Your task to perform on an android device: Set the phone to "Do not disturb". Image 0: 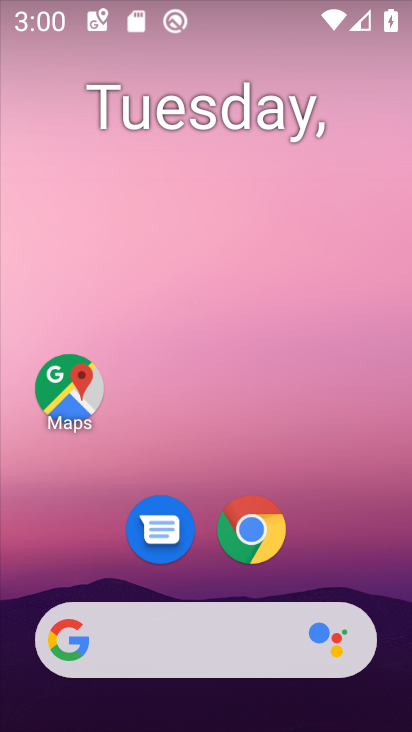
Step 0: drag from (243, 4) to (16, 563)
Your task to perform on an android device: Set the phone to "Do not disturb". Image 1: 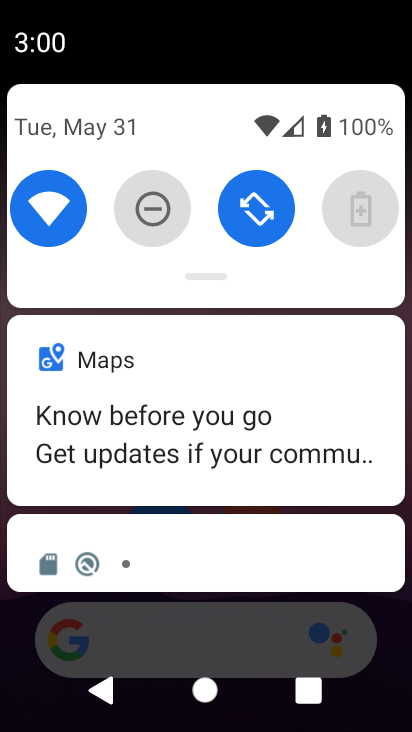
Step 1: click (143, 202)
Your task to perform on an android device: Set the phone to "Do not disturb". Image 2: 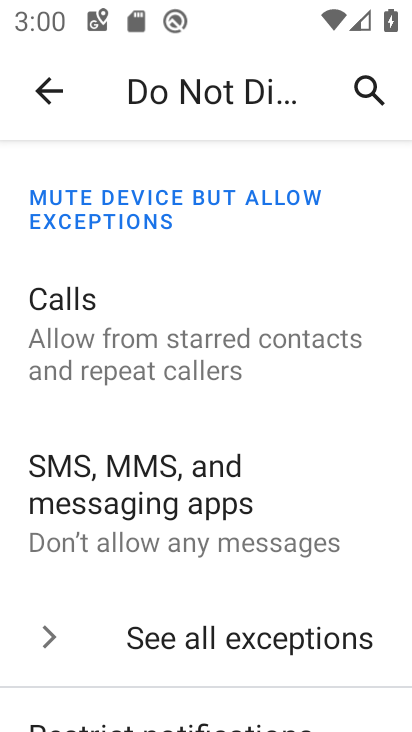
Step 2: drag from (248, 568) to (335, 192)
Your task to perform on an android device: Set the phone to "Do not disturb". Image 3: 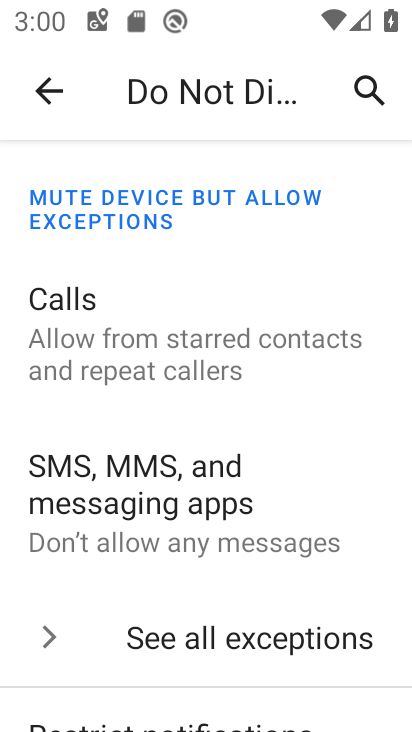
Step 3: drag from (201, 601) to (279, 216)
Your task to perform on an android device: Set the phone to "Do not disturb". Image 4: 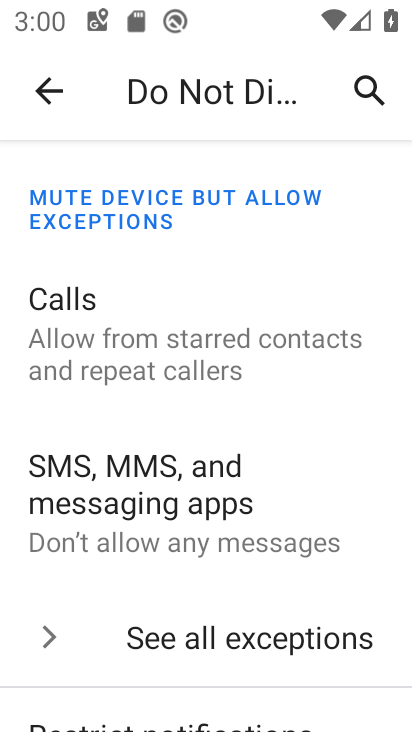
Step 4: drag from (132, 622) to (267, 198)
Your task to perform on an android device: Set the phone to "Do not disturb". Image 5: 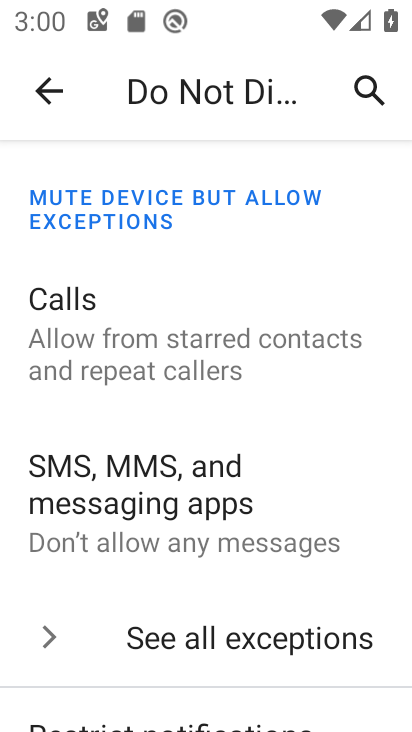
Step 5: drag from (125, 706) to (237, 182)
Your task to perform on an android device: Set the phone to "Do not disturb". Image 6: 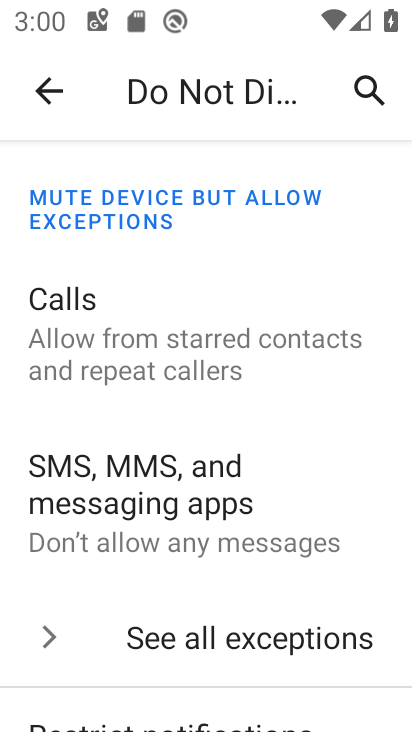
Step 6: drag from (166, 577) to (166, 383)
Your task to perform on an android device: Set the phone to "Do not disturb". Image 7: 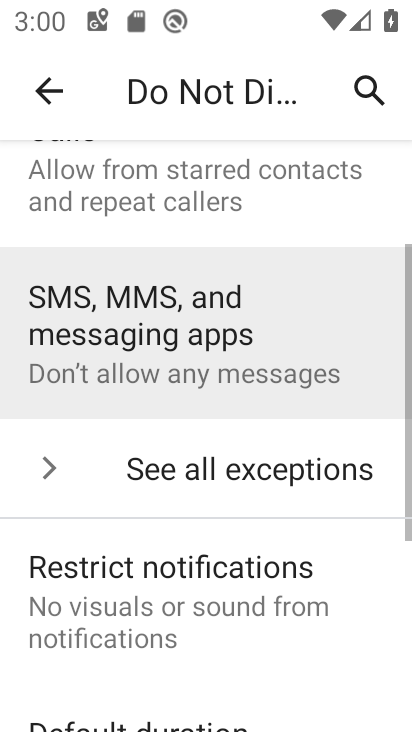
Step 7: drag from (148, 532) to (193, 276)
Your task to perform on an android device: Set the phone to "Do not disturb". Image 8: 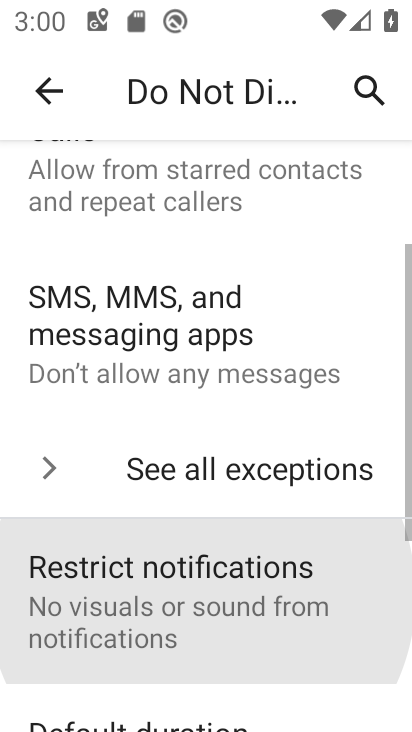
Step 8: drag from (143, 537) to (192, 306)
Your task to perform on an android device: Set the phone to "Do not disturb". Image 9: 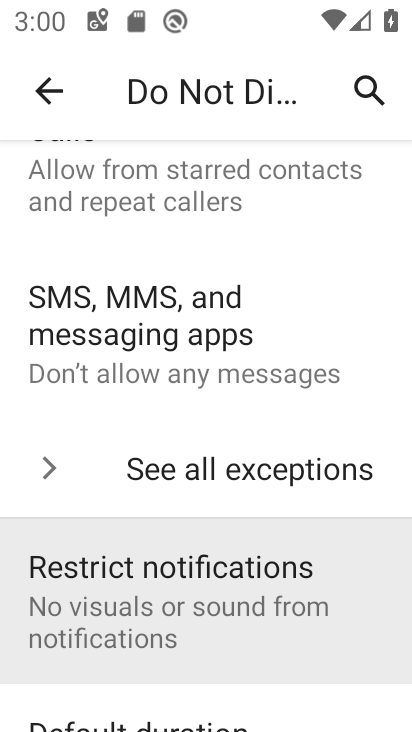
Step 9: drag from (144, 593) to (201, 284)
Your task to perform on an android device: Set the phone to "Do not disturb". Image 10: 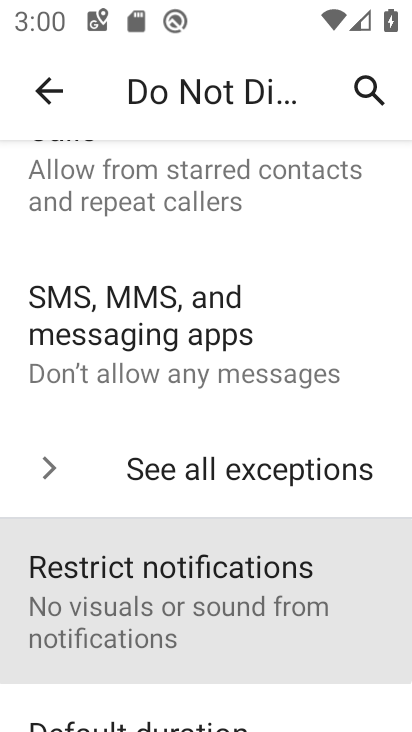
Step 10: drag from (85, 685) to (138, 358)
Your task to perform on an android device: Set the phone to "Do not disturb". Image 11: 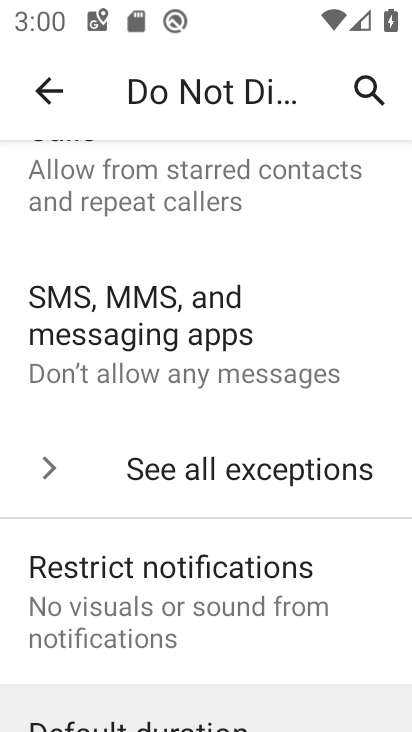
Step 11: drag from (58, 682) to (101, 410)
Your task to perform on an android device: Set the phone to "Do not disturb". Image 12: 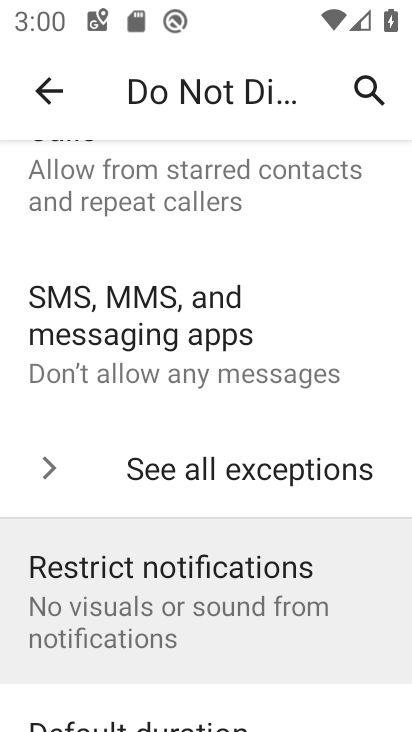
Step 12: drag from (46, 686) to (142, 434)
Your task to perform on an android device: Set the phone to "Do not disturb". Image 13: 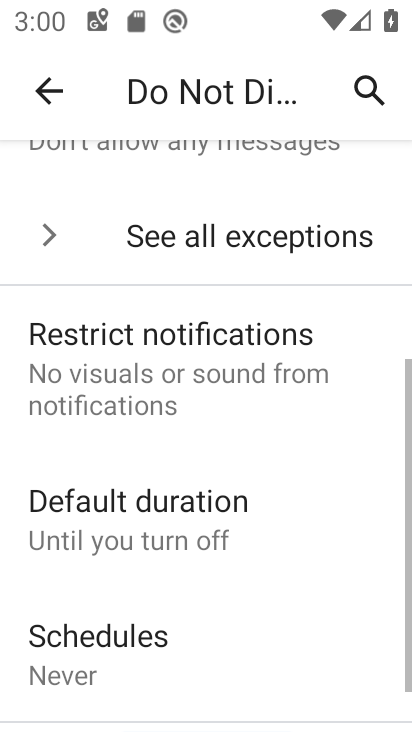
Step 13: drag from (151, 663) to (181, 354)
Your task to perform on an android device: Set the phone to "Do not disturb". Image 14: 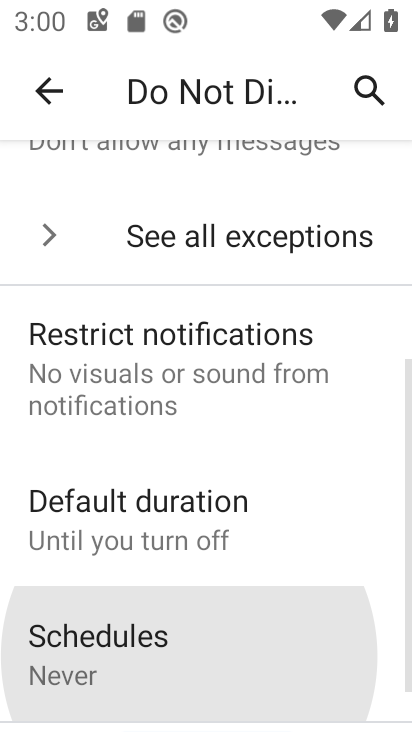
Step 14: drag from (134, 489) to (157, 303)
Your task to perform on an android device: Set the phone to "Do not disturb". Image 15: 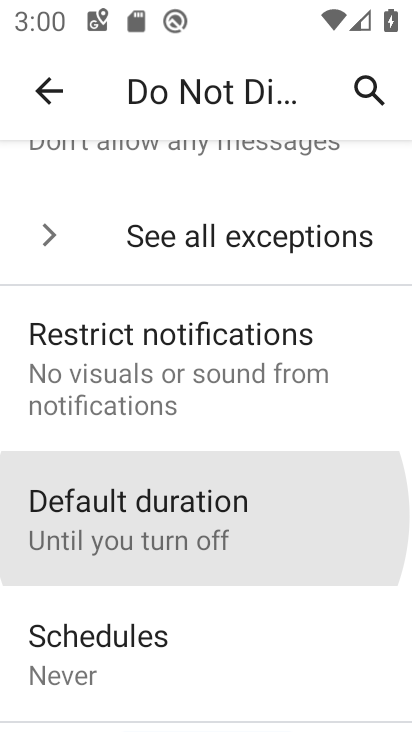
Step 15: drag from (119, 539) to (179, 285)
Your task to perform on an android device: Set the phone to "Do not disturb". Image 16: 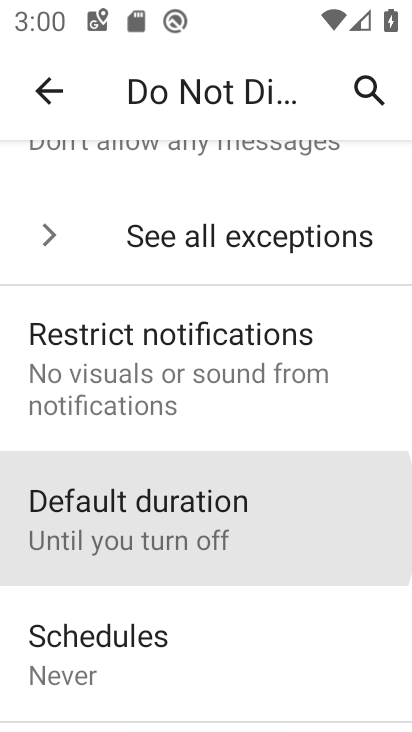
Step 16: drag from (85, 549) to (177, 184)
Your task to perform on an android device: Set the phone to "Do not disturb". Image 17: 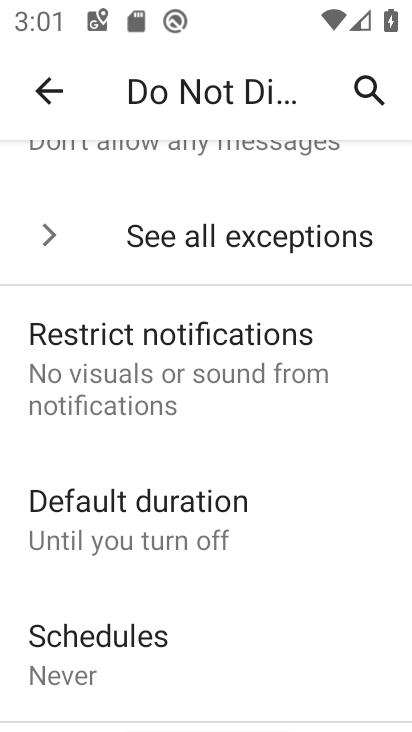
Step 17: drag from (164, 549) to (219, 313)
Your task to perform on an android device: Set the phone to "Do not disturb". Image 18: 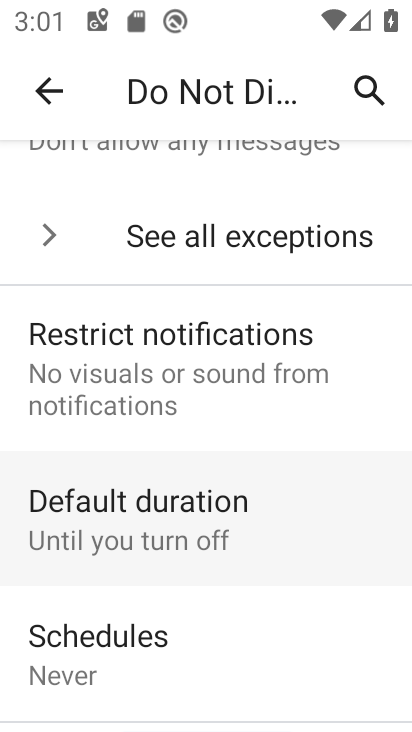
Step 18: drag from (135, 555) to (212, 198)
Your task to perform on an android device: Set the phone to "Do not disturb". Image 19: 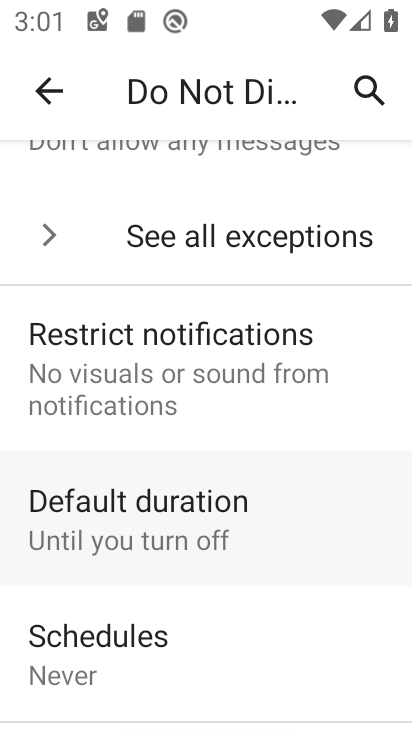
Step 19: drag from (89, 622) to (220, 202)
Your task to perform on an android device: Set the phone to "Do not disturb". Image 20: 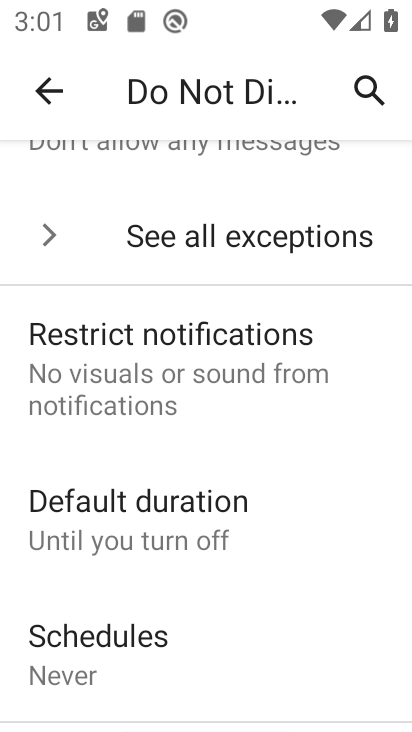
Step 20: drag from (135, 600) to (207, 193)
Your task to perform on an android device: Set the phone to "Do not disturb". Image 21: 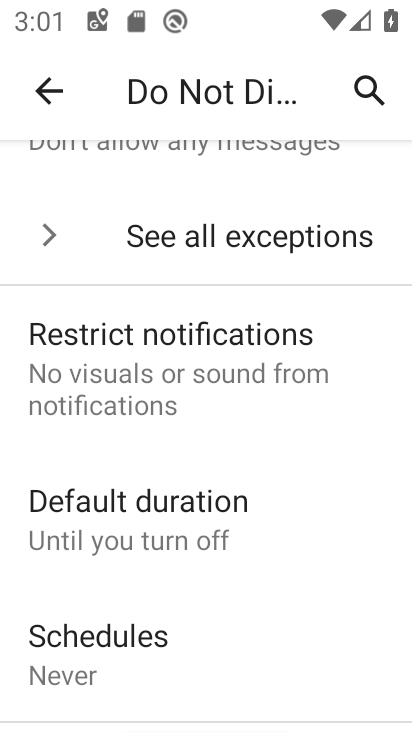
Step 21: drag from (158, 538) to (218, 247)
Your task to perform on an android device: Set the phone to "Do not disturb". Image 22: 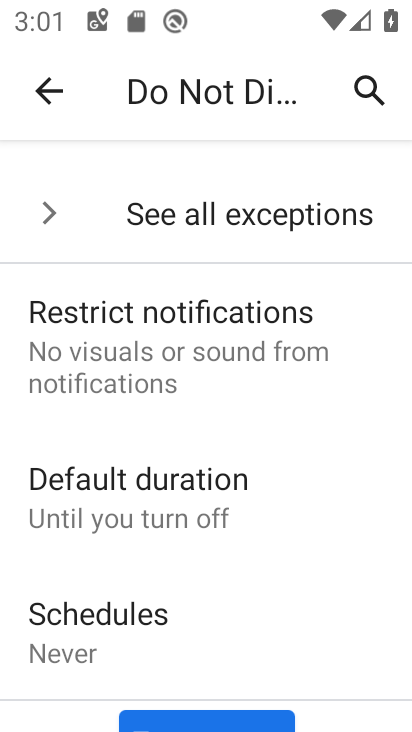
Step 22: click (185, 712)
Your task to perform on an android device: Set the phone to "Do not disturb". Image 23: 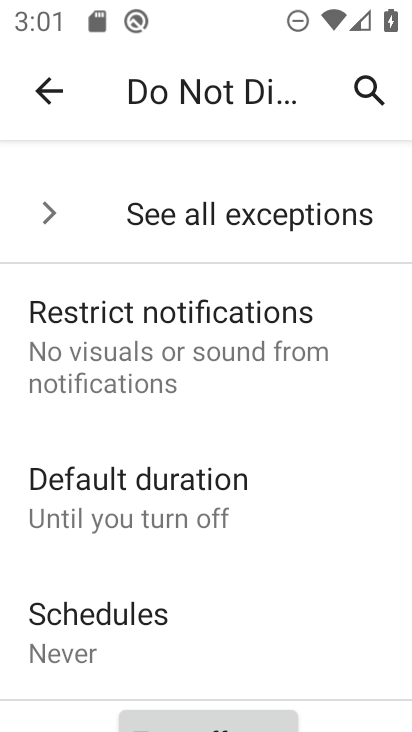
Step 23: task complete